Your task to perform on an android device: check battery use Image 0: 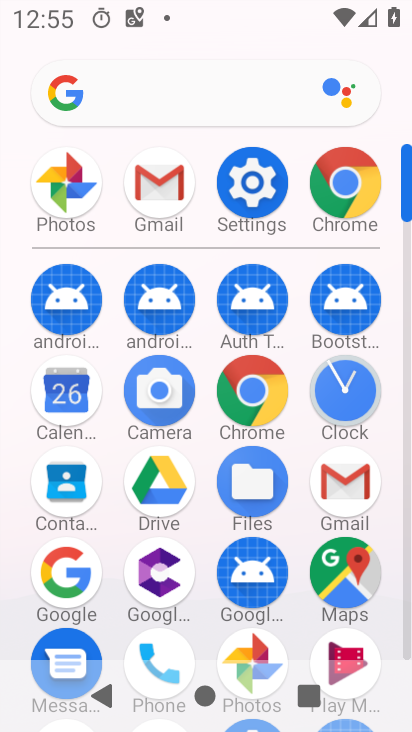
Step 0: press home button
Your task to perform on an android device: check battery use Image 1: 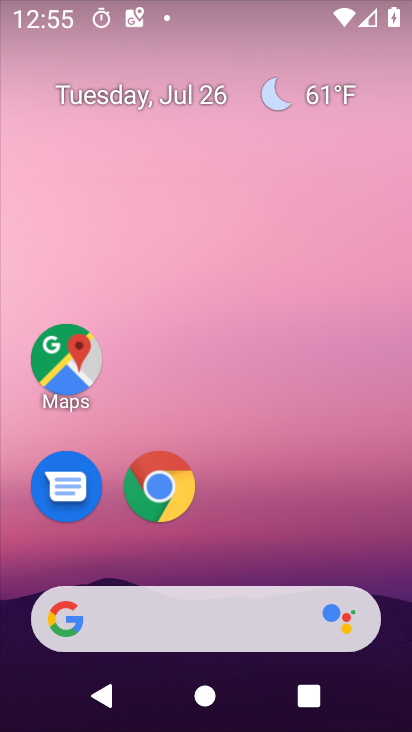
Step 1: drag from (371, 501) to (410, 394)
Your task to perform on an android device: check battery use Image 2: 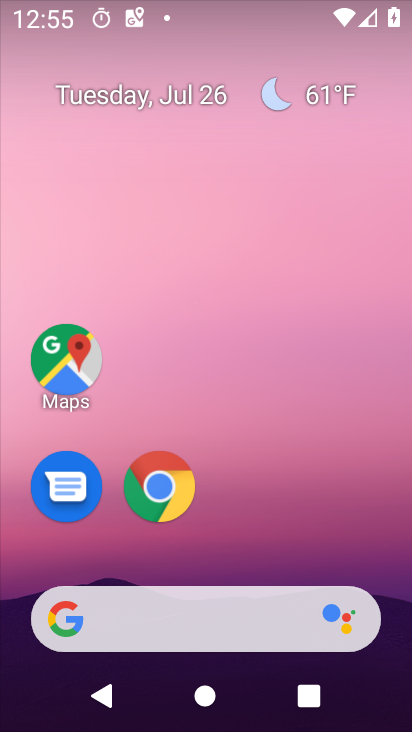
Step 2: drag from (340, 533) to (369, 330)
Your task to perform on an android device: check battery use Image 3: 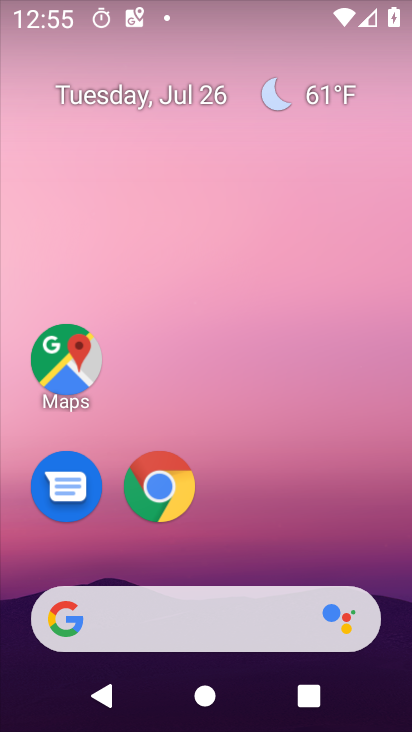
Step 3: drag from (339, 419) to (328, 58)
Your task to perform on an android device: check battery use Image 4: 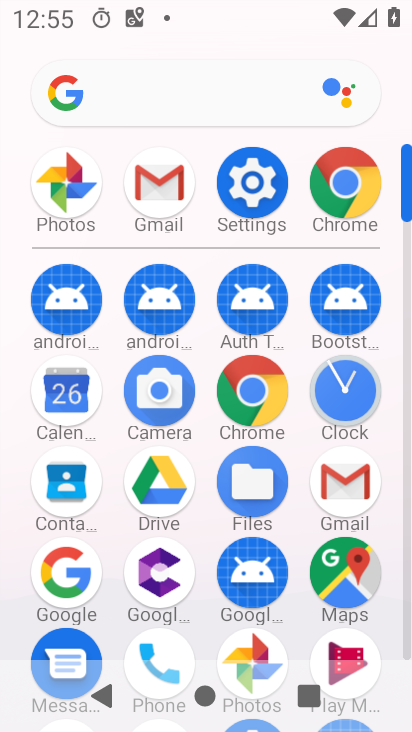
Step 4: click (265, 195)
Your task to perform on an android device: check battery use Image 5: 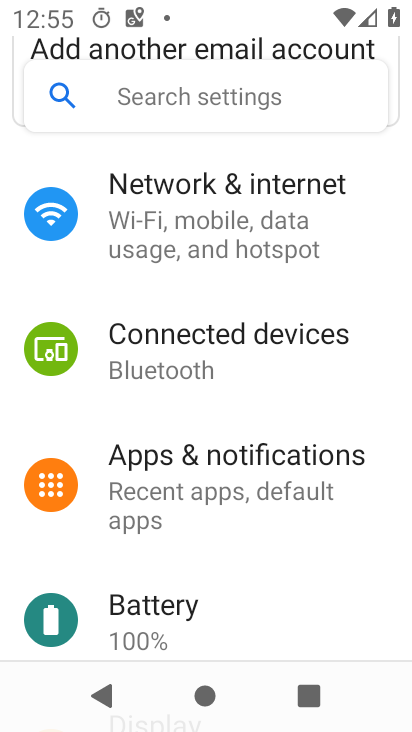
Step 5: drag from (371, 545) to (367, 346)
Your task to perform on an android device: check battery use Image 6: 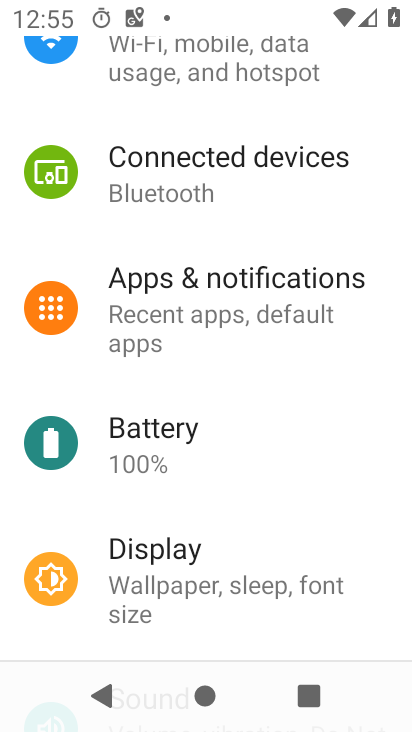
Step 6: drag from (366, 580) to (365, 400)
Your task to perform on an android device: check battery use Image 7: 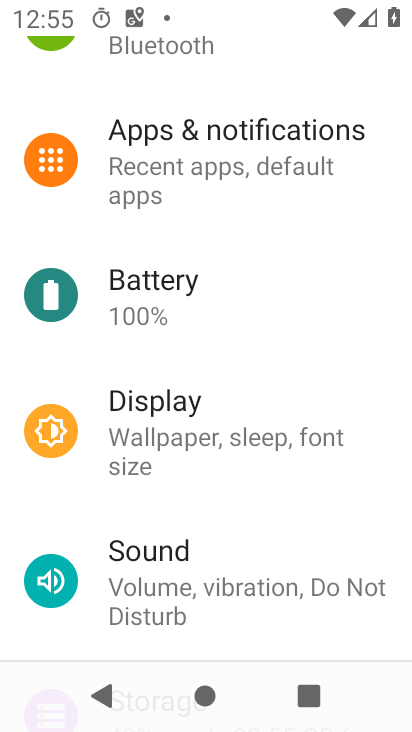
Step 7: drag from (358, 619) to (356, 454)
Your task to perform on an android device: check battery use Image 8: 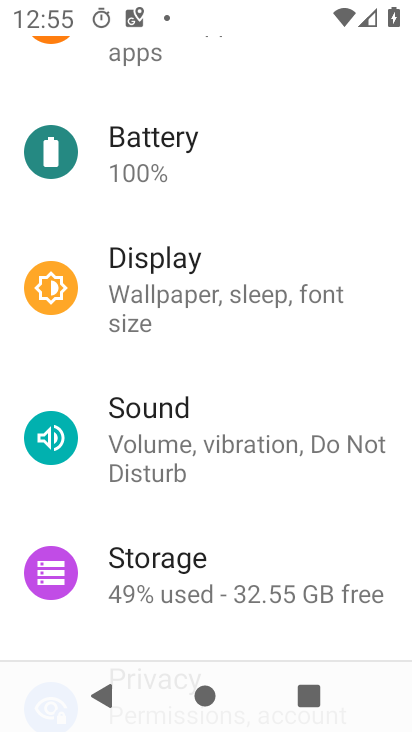
Step 8: drag from (345, 625) to (342, 499)
Your task to perform on an android device: check battery use Image 9: 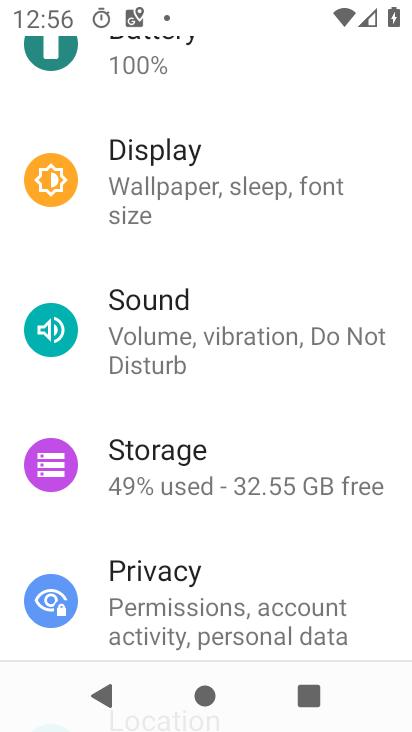
Step 9: drag from (333, 630) to (324, 484)
Your task to perform on an android device: check battery use Image 10: 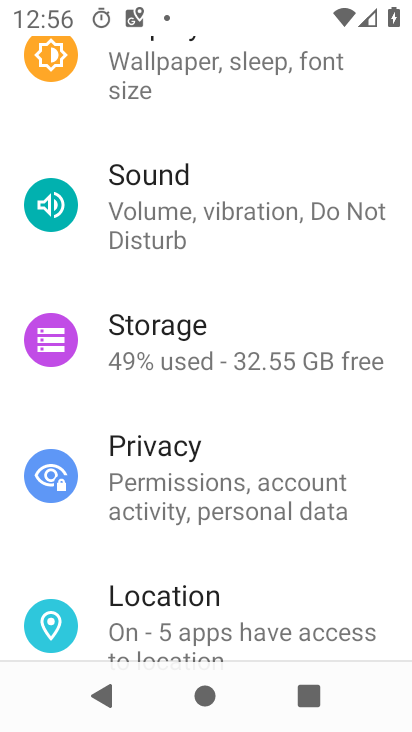
Step 10: drag from (318, 603) to (318, 488)
Your task to perform on an android device: check battery use Image 11: 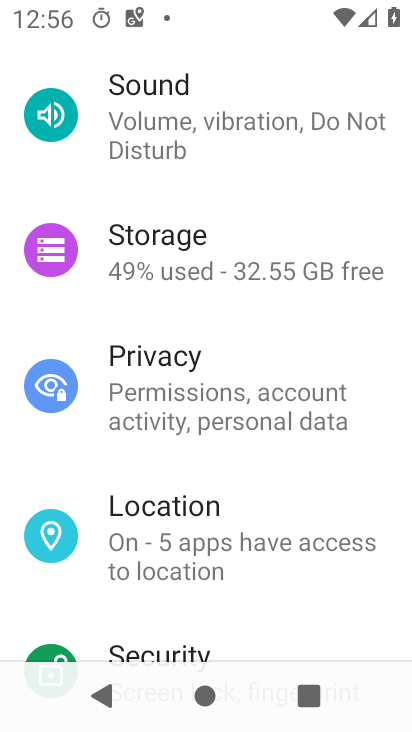
Step 11: drag from (323, 605) to (324, 426)
Your task to perform on an android device: check battery use Image 12: 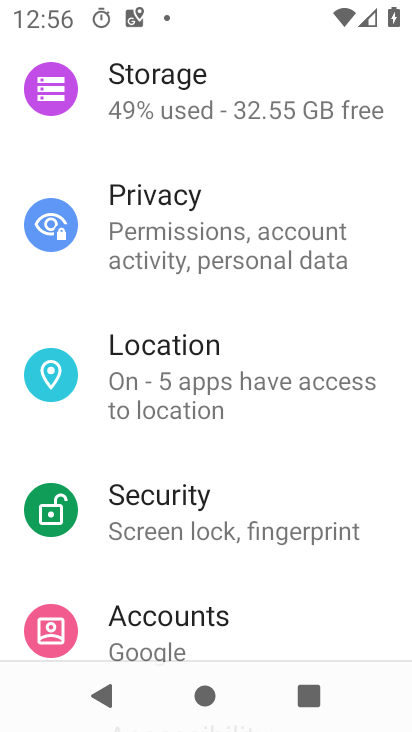
Step 12: drag from (352, 634) to (342, 461)
Your task to perform on an android device: check battery use Image 13: 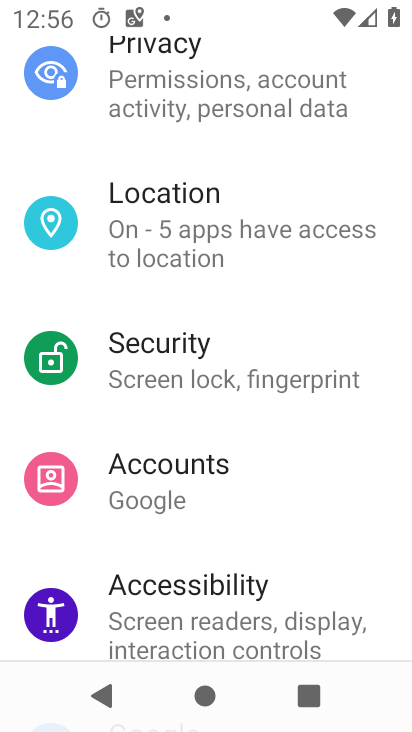
Step 13: drag from (377, 257) to (375, 390)
Your task to perform on an android device: check battery use Image 14: 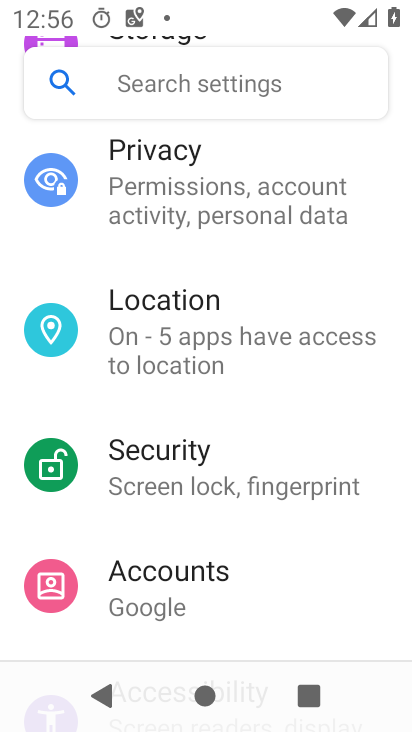
Step 14: drag from (366, 182) to (367, 317)
Your task to perform on an android device: check battery use Image 15: 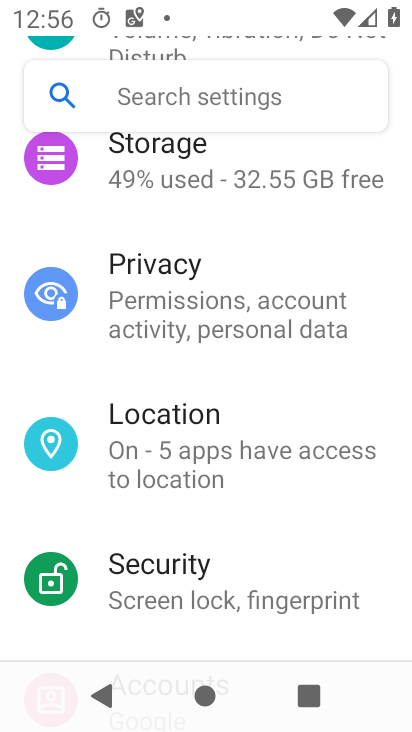
Step 15: drag from (358, 223) to (365, 362)
Your task to perform on an android device: check battery use Image 16: 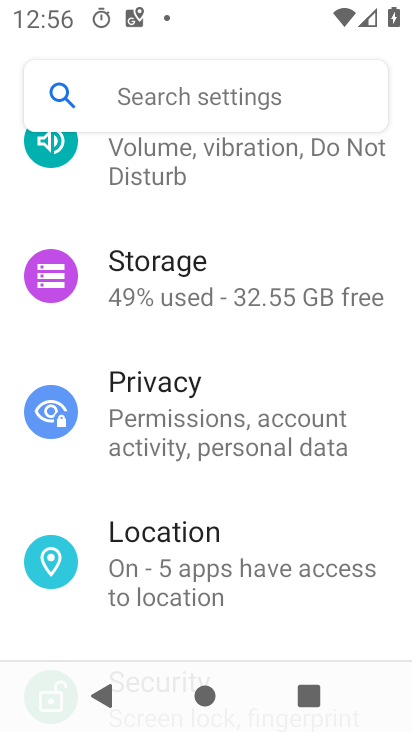
Step 16: drag from (367, 208) to (376, 410)
Your task to perform on an android device: check battery use Image 17: 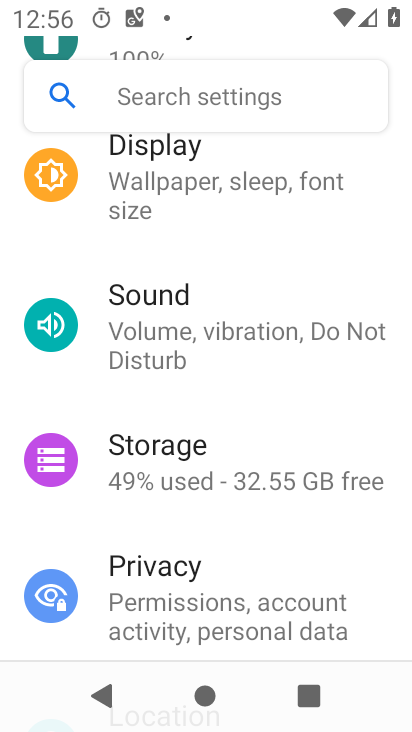
Step 17: drag from (363, 165) to (369, 354)
Your task to perform on an android device: check battery use Image 18: 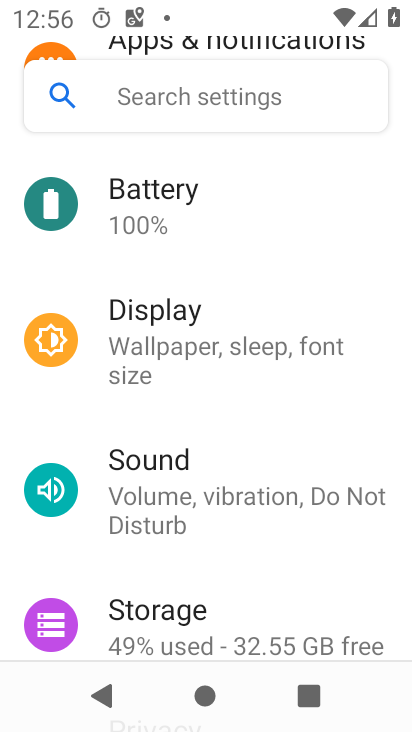
Step 18: click (287, 226)
Your task to perform on an android device: check battery use Image 19: 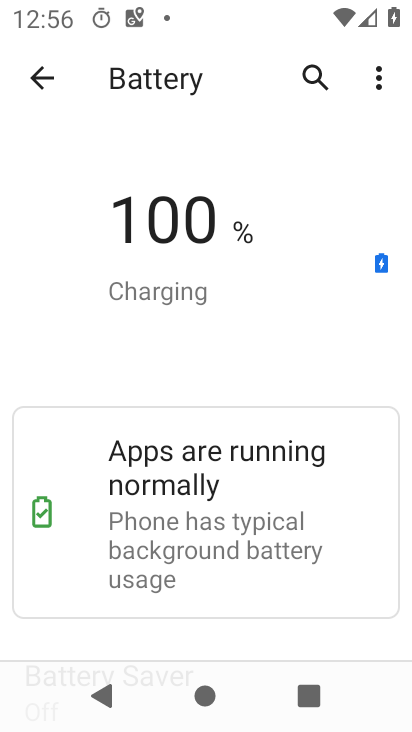
Step 19: click (378, 79)
Your task to perform on an android device: check battery use Image 20: 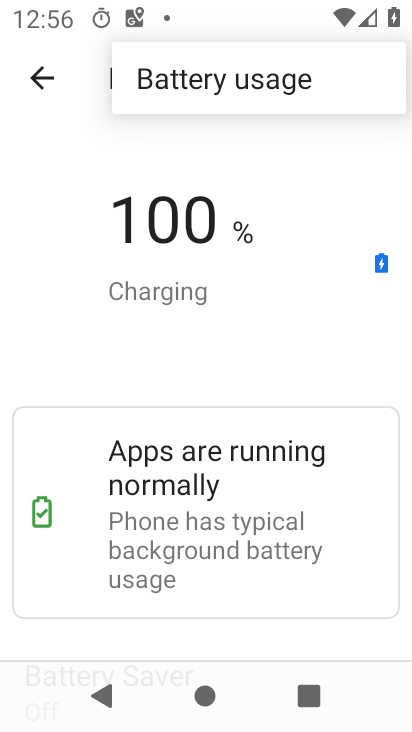
Step 20: click (278, 79)
Your task to perform on an android device: check battery use Image 21: 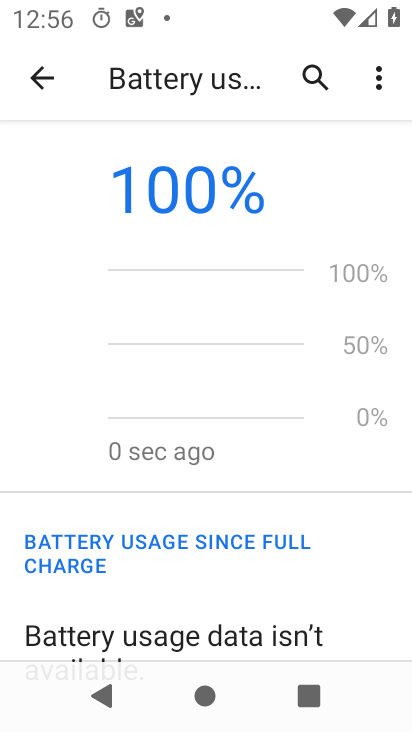
Step 21: task complete